Your task to perform on an android device: Show me popular games on the Play Store Image 0: 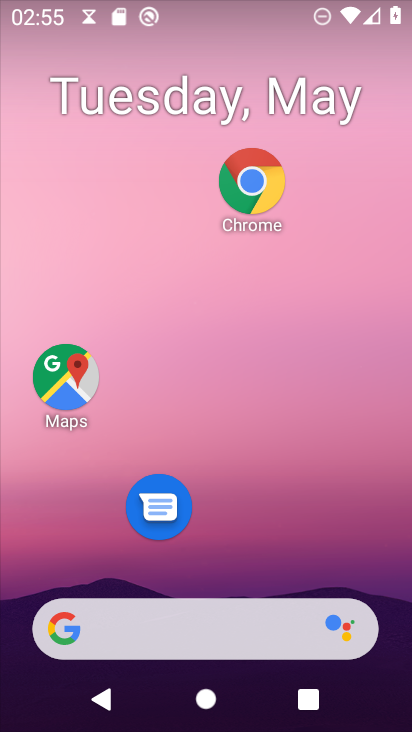
Step 0: drag from (270, 535) to (278, 227)
Your task to perform on an android device: Show me popular games on the Play Store Image 1: 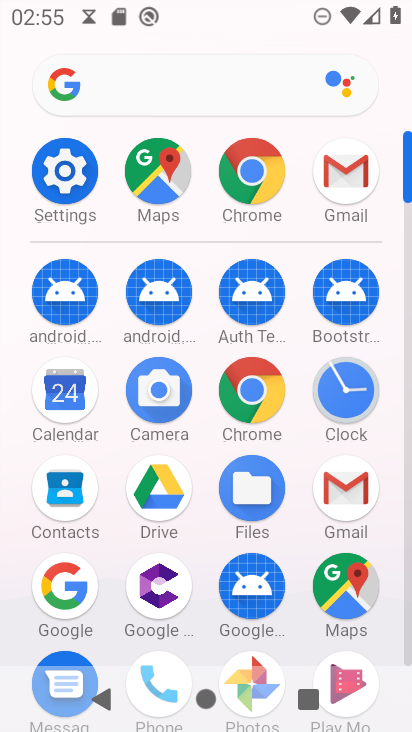
Step 1: drag from (283, 573) to (308, 289)
Your task to perform on an android device: Show me popular games on the Play Store Image 2: 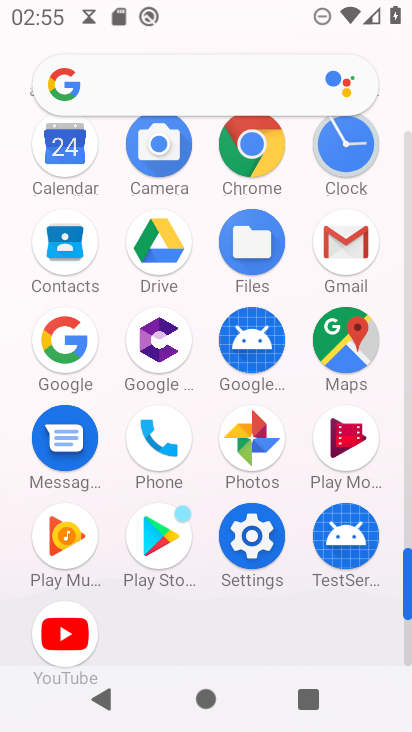
Step 2: click (164, 536)
Your task to perform on an android device: Show me popular games on the Play Store Image 3: 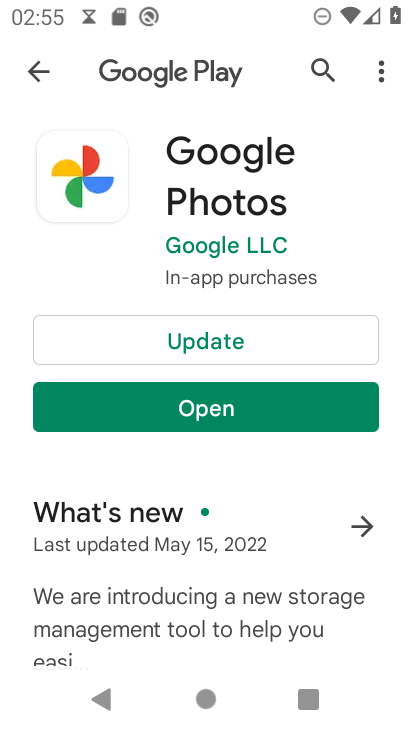
Step 3: click (27, 75)
Your task to perform on an android device: Show me popular games on the Play Store Image 4: 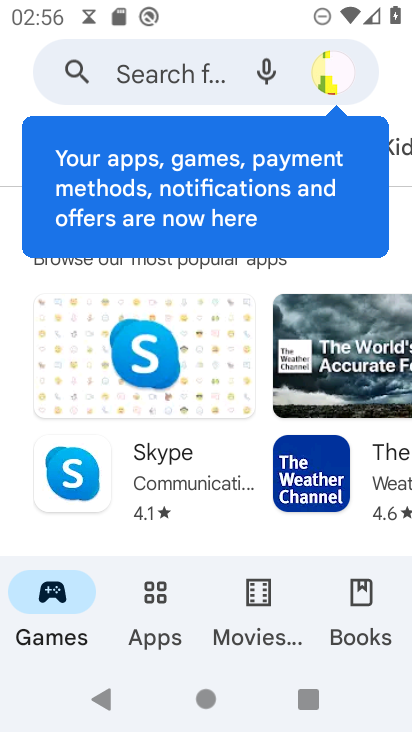
Step 4: task complete